Your task to perform on an android device: Go to Wikipedia Image 0: 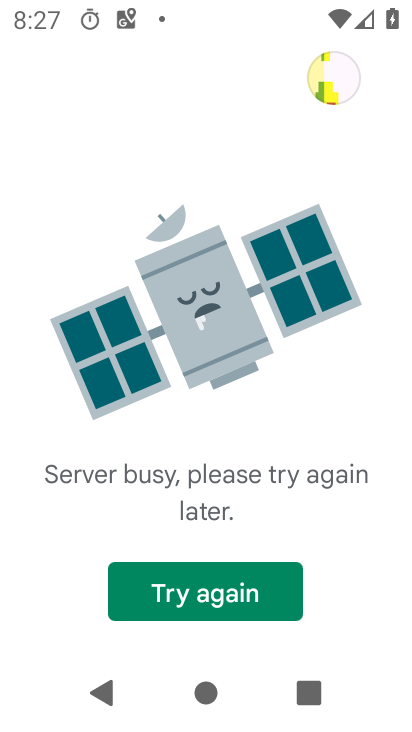
Step 0: press home button
Your task to perform on an android device: Go to Wikipedia Image 1: 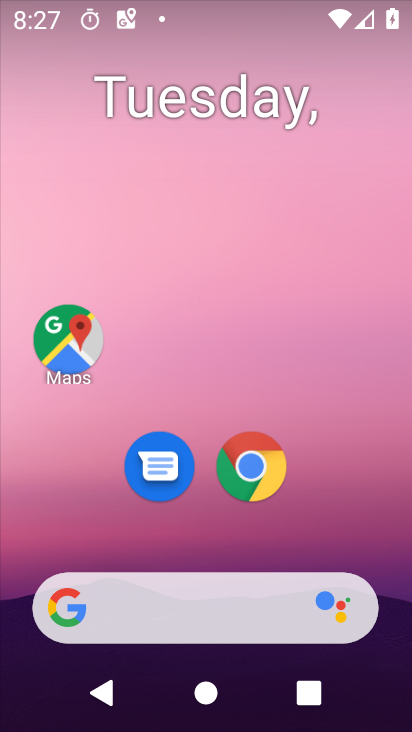
Step 1: drag from (233, 520) to (111, 32)
Your task to perform on an android device: Go to Wikipedia Image 2: 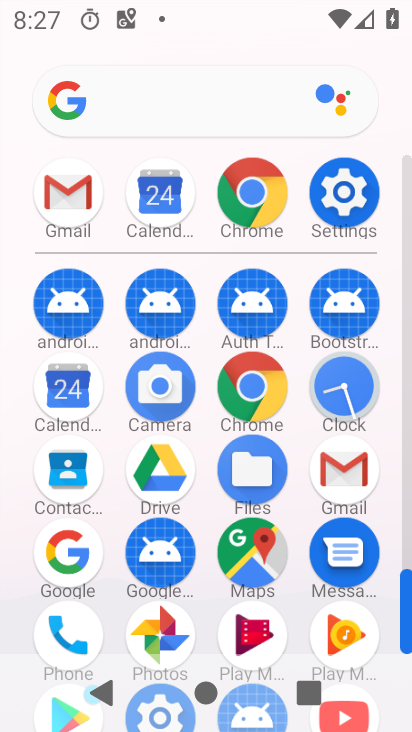
Step 2: click (247, 398)
Your task to perform on an android device: Go to Wikipedia Image 3: 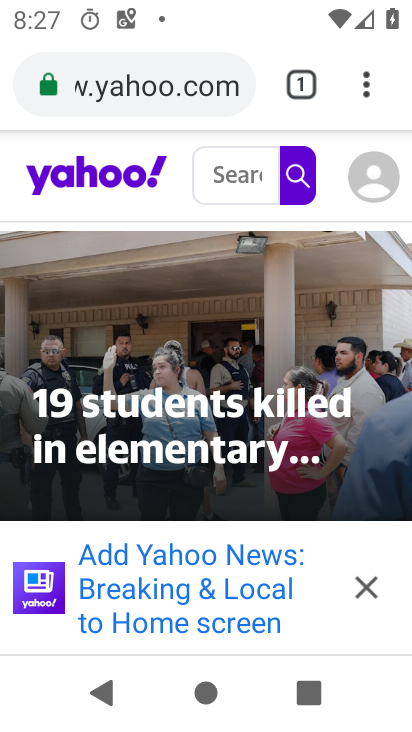
Step 3: click (165, 81)
Your task to perform on an android device: Go to Wikipedia Image 4: 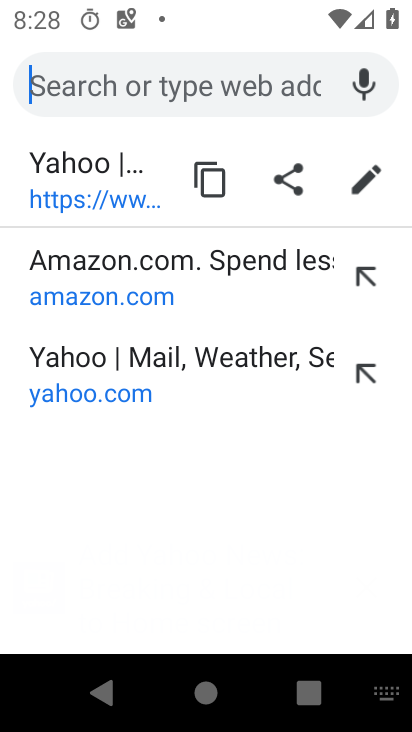
Step 4: type "wikipedia"
Your task to perform on an android device: Go to Wikipedia Image 5: 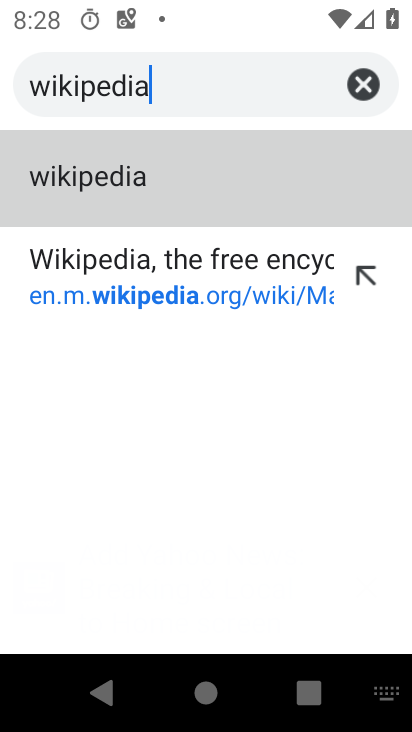
Step 5: click (133, 166)
Your task to perform on an android device: Go to Wikipedia Image 6: 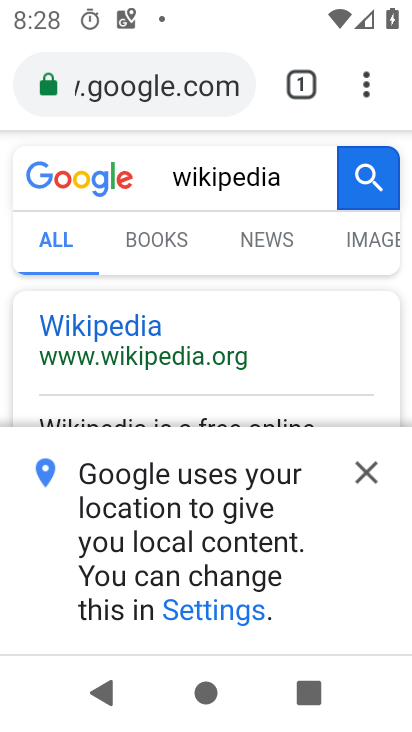
Step 6: click (366, 478)
Your task to perform on an android device: Go to Wikipedia Image 7: 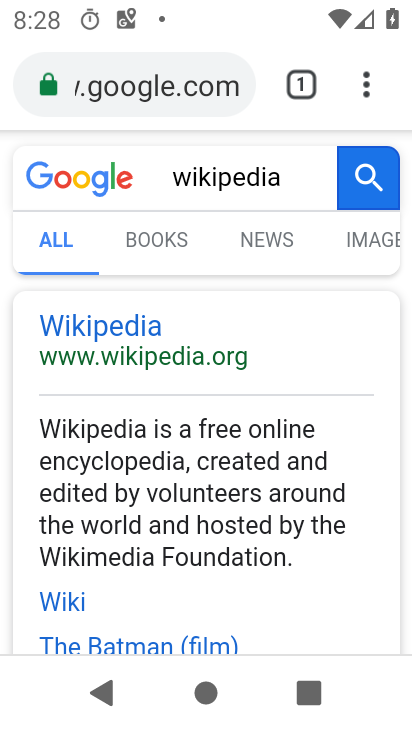
Step 7: task complete